Your task to perform on an android device: Search for a tv stand on Ikea Image 0: 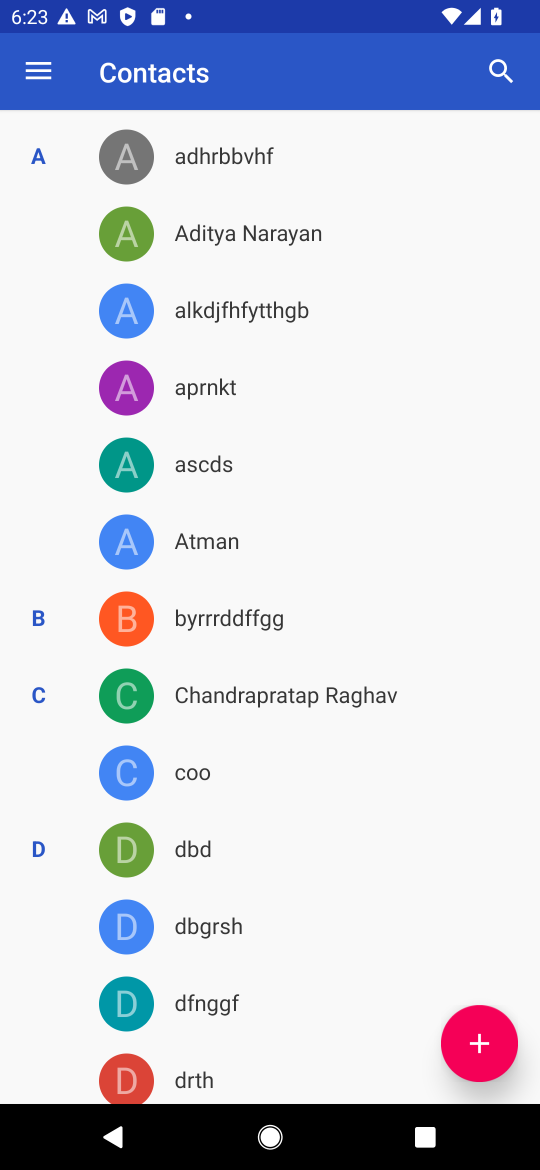
Step 0: press home button
Your task to perform on an android device: Search for a tv stand on Ikea Image 1: 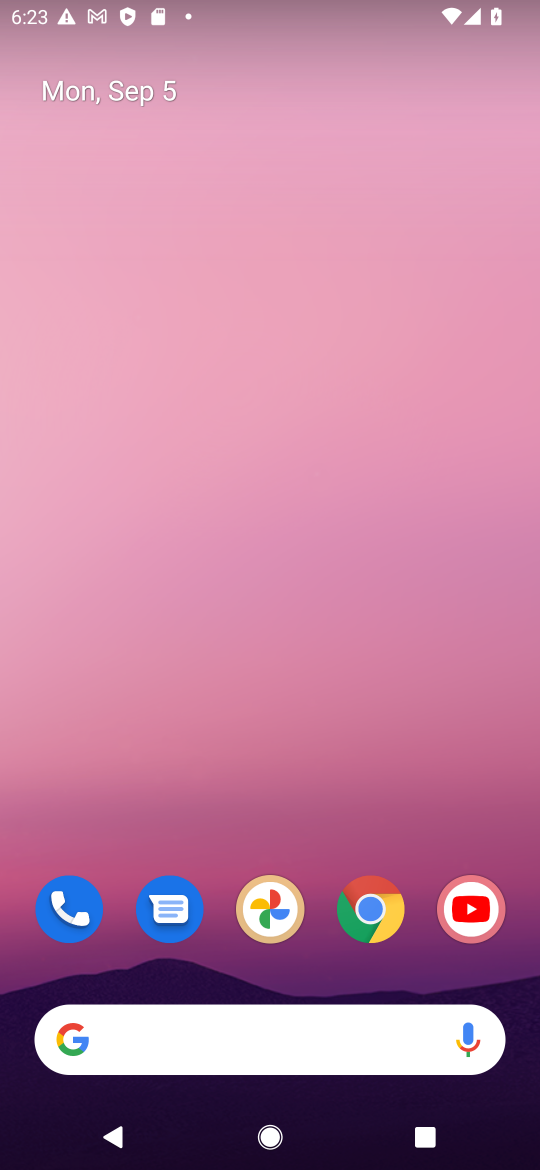
Step 1: click (395, 122)
Your task to perform on an android device: Search for a tv stand on Ikea Image 2: 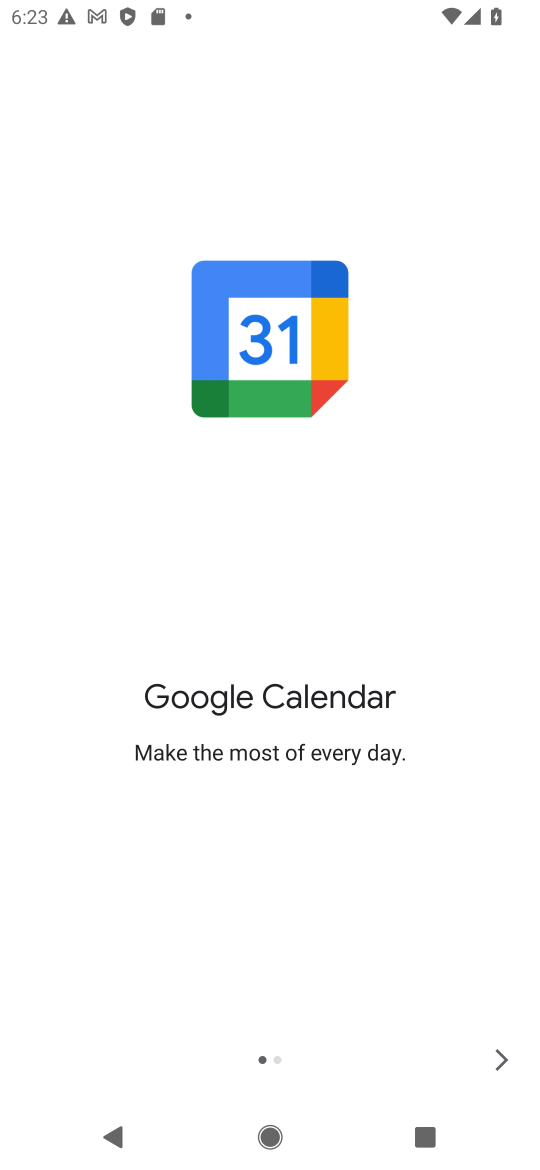
Step 2: press home button
Your task to perform on an android device: Search for a tv stand on Ikea Image 3: 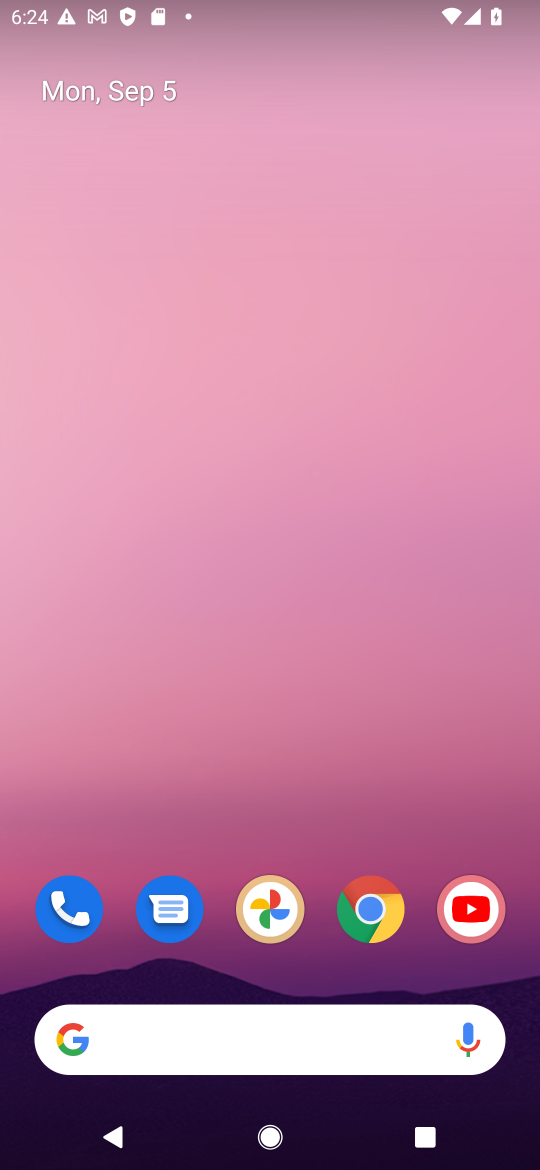
Step 3: drag from (291, 987) to (293, 336)
Your task to perform on an android device: Search for a tv stand on Ikea Image 4: 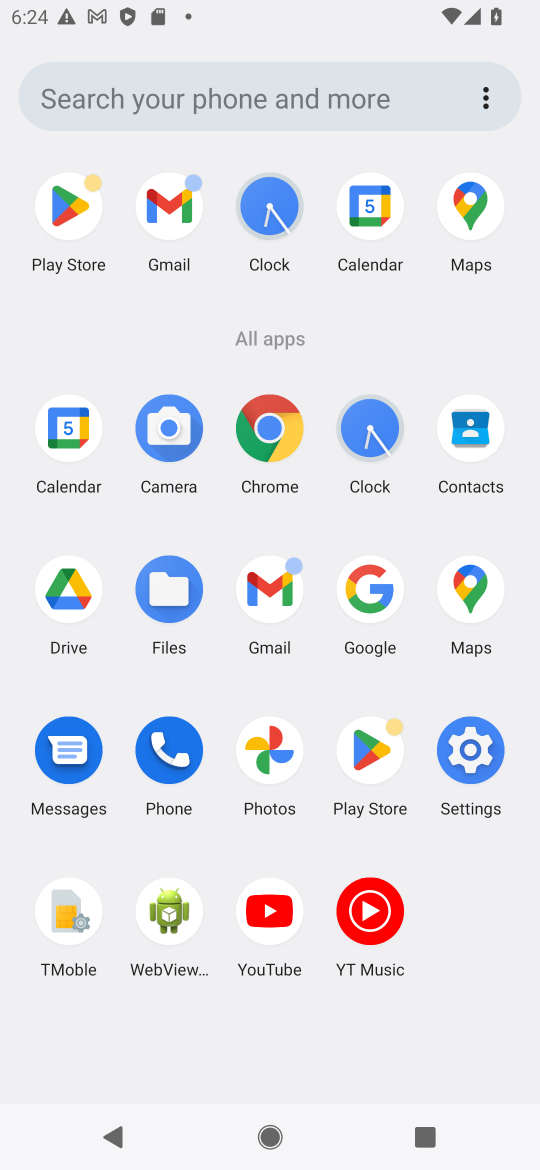
Step 4: click (374, 596)
Your task to perform on an android device: Search for a tv stand on Ikea Image 5: 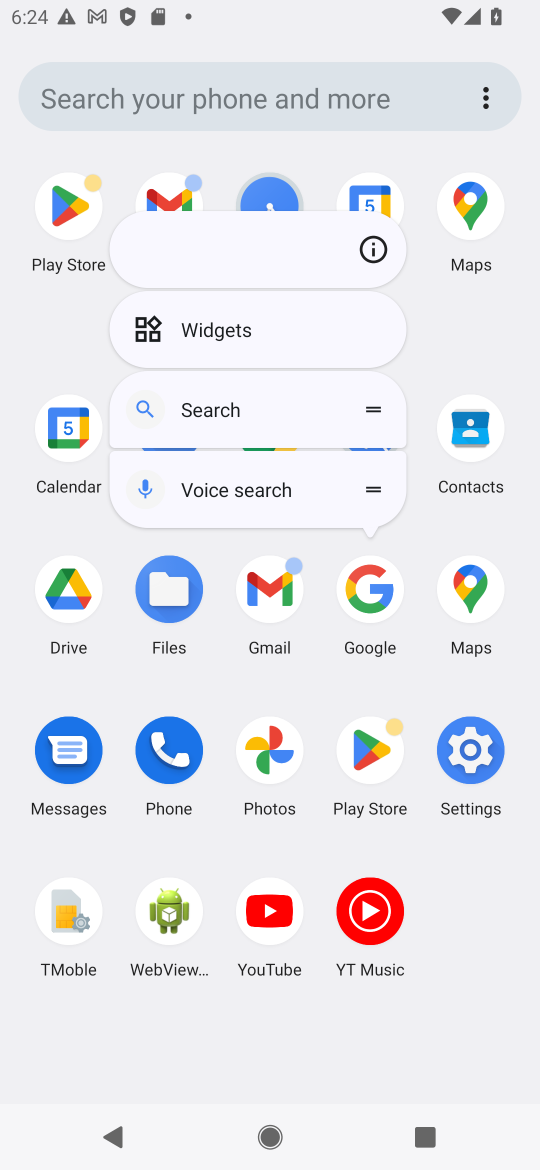
Step 5: click (375, 605)
Your task to perform on an android device: Search for a tv stand on Ikea Image 6: 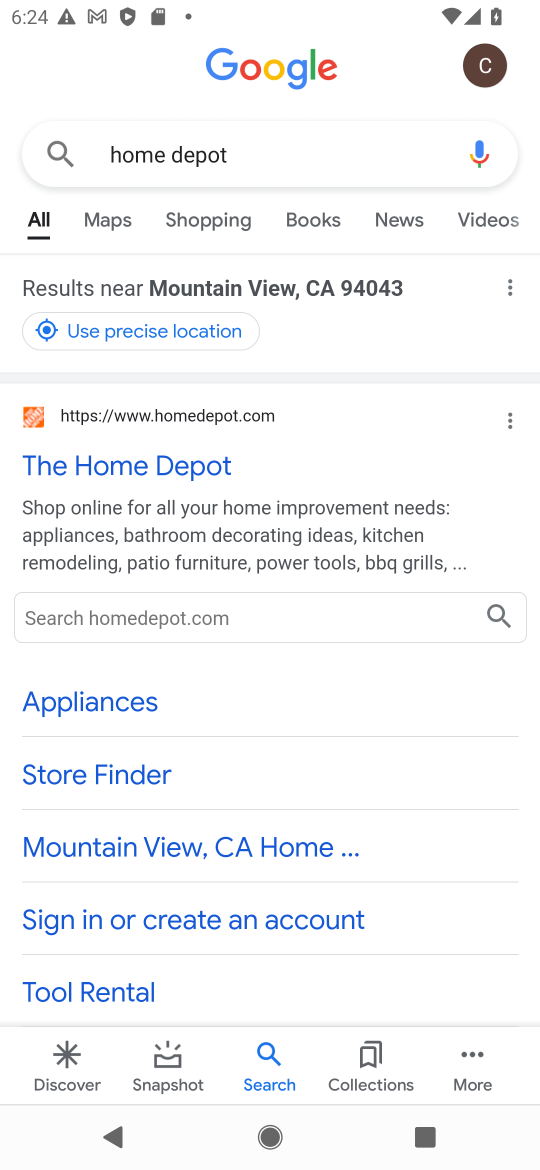
Step 6: click (183, 152)
Your task to perform on an android device: Search for a tv stand on Ikea Image 7: 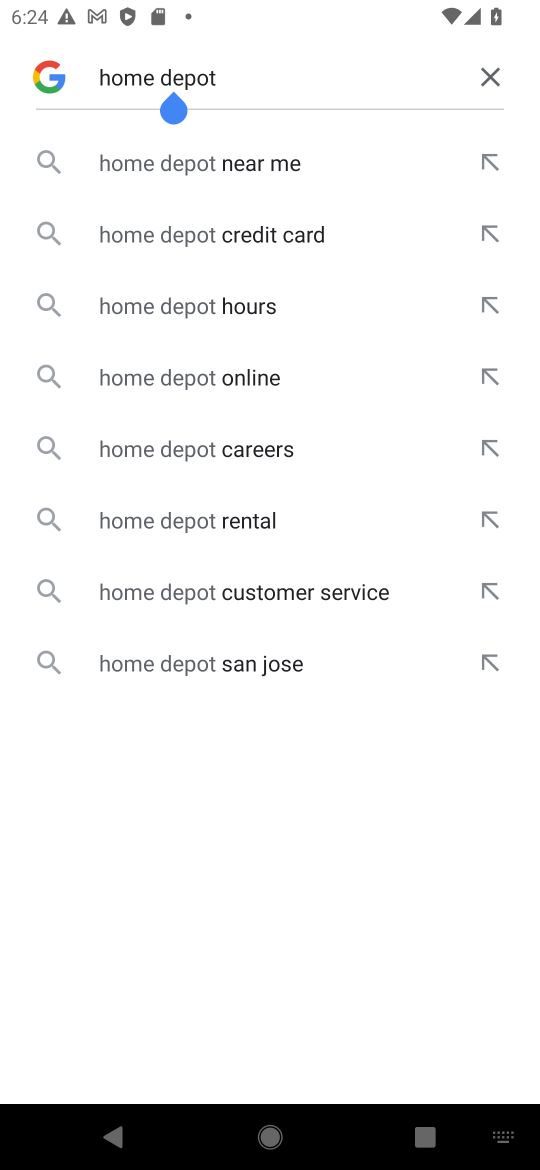
Step 7: click (503, 79)
Your task to perform on an android device: Search for a tv stand on Ikea Image 8: 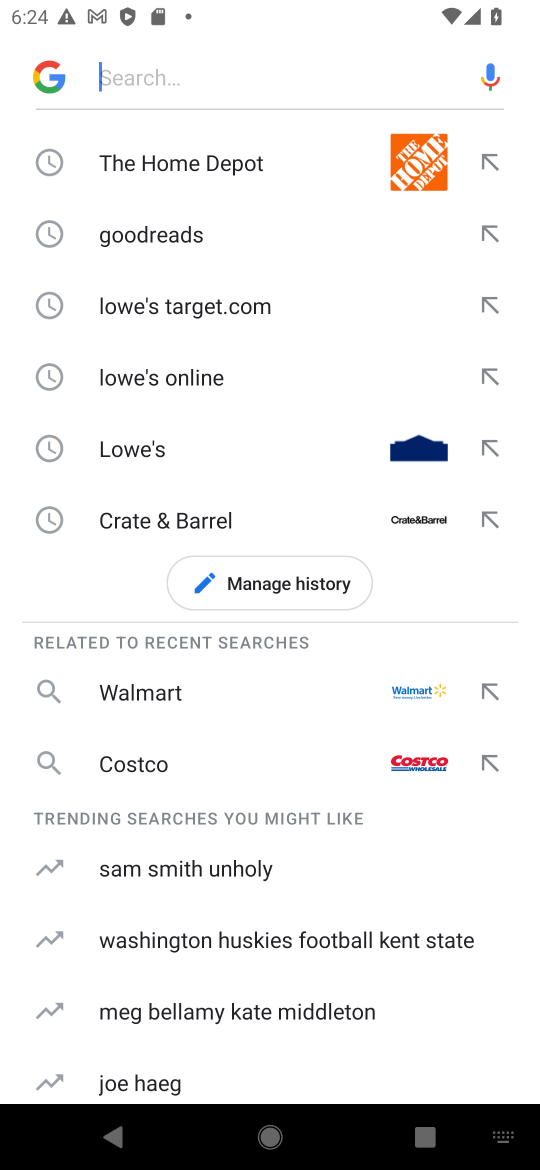
Step 8: type "Ikea"
Your task to perform on an android device: Search for a tv stand on Ikea Image 9: 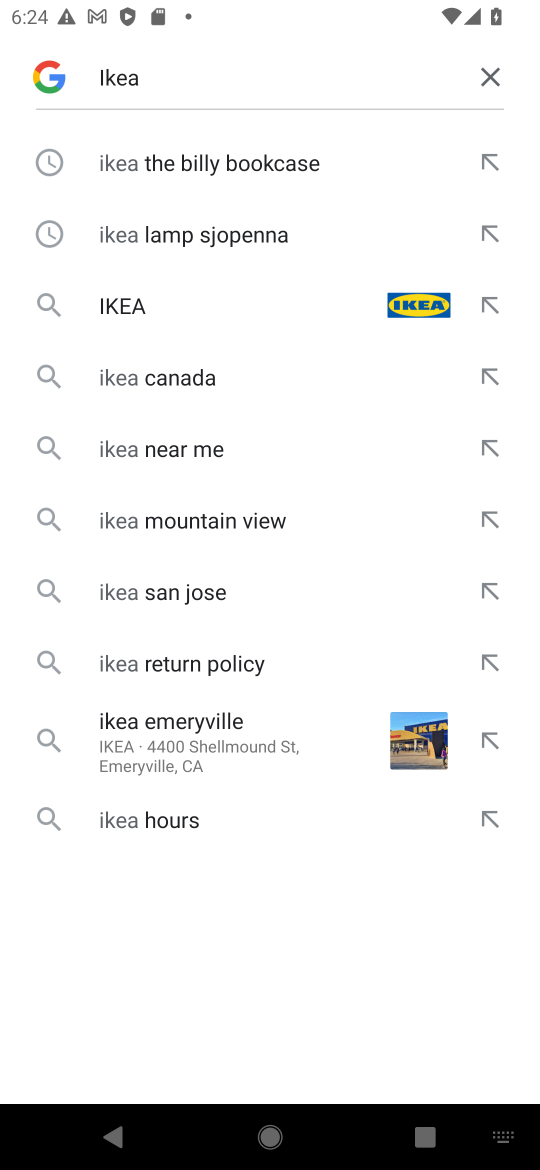
Step 9: click (431, 300)
Your task to perform on an android device: Search for a tv stand on Ikea Image 10: 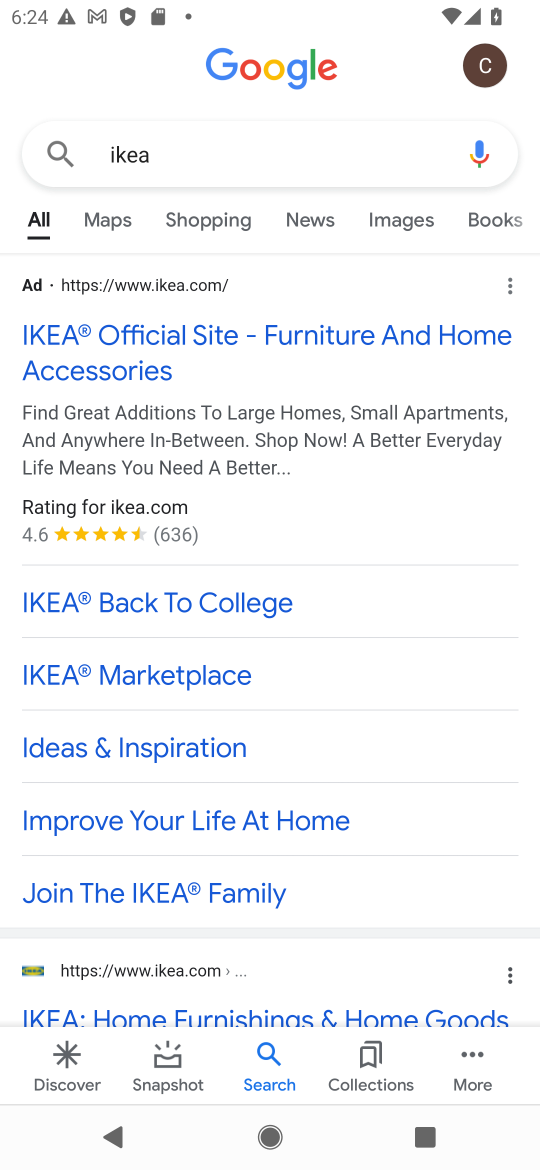
Step 10: click (97, 320)
Your task to perform on an android device: Search for a tv stand on Ikea Image 11: 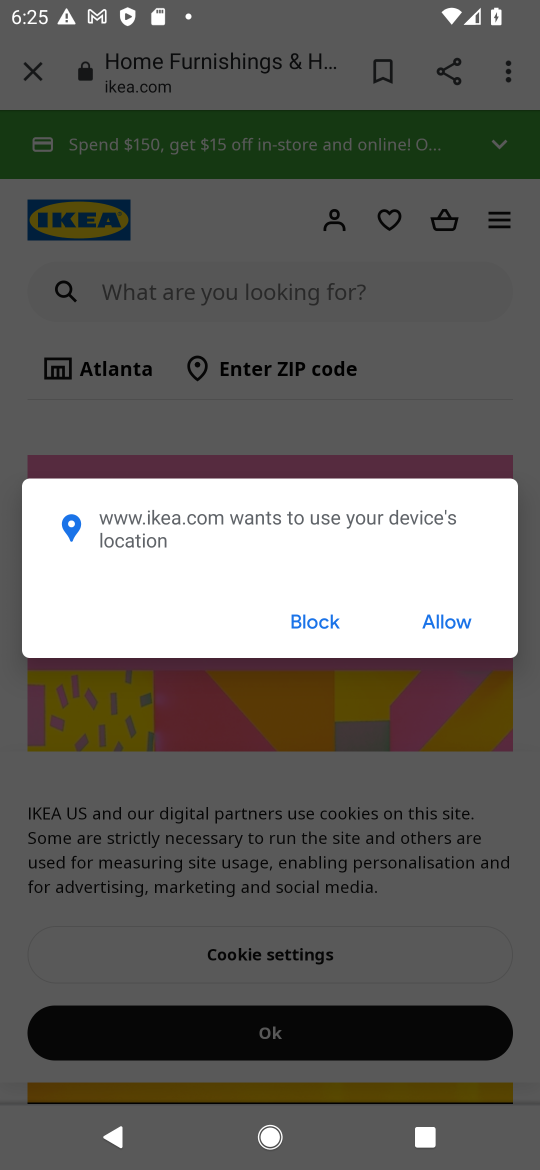
Step 11: click (295, 624)
Your task to perform on an android device: Search for a tv stand on Ikea Image 12: 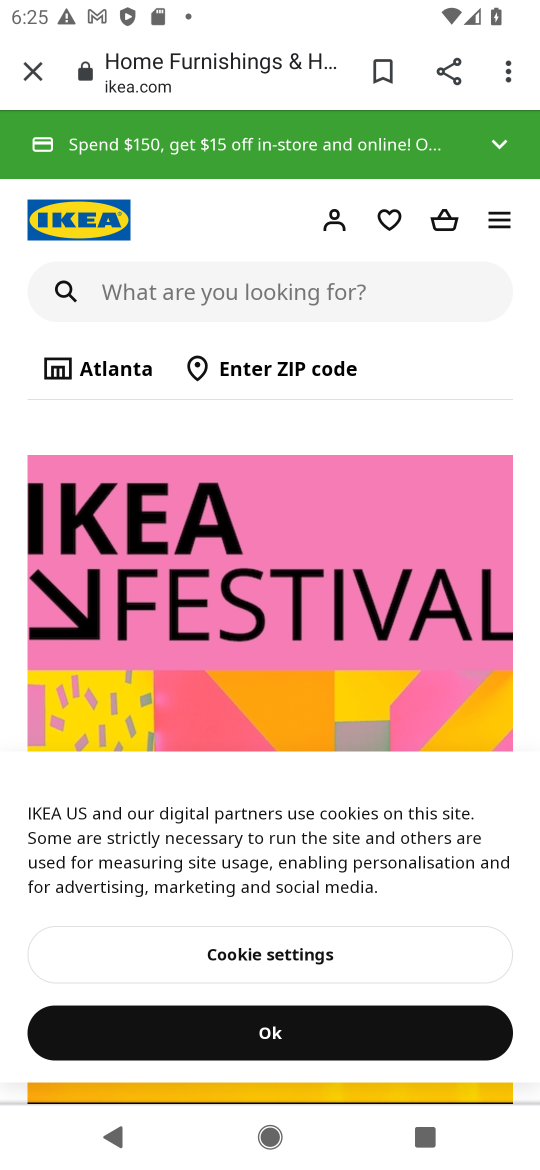
Step 12: click (147, 291)
Your task to perform on an android device: Search for a tv stand on Ikea Image 13: 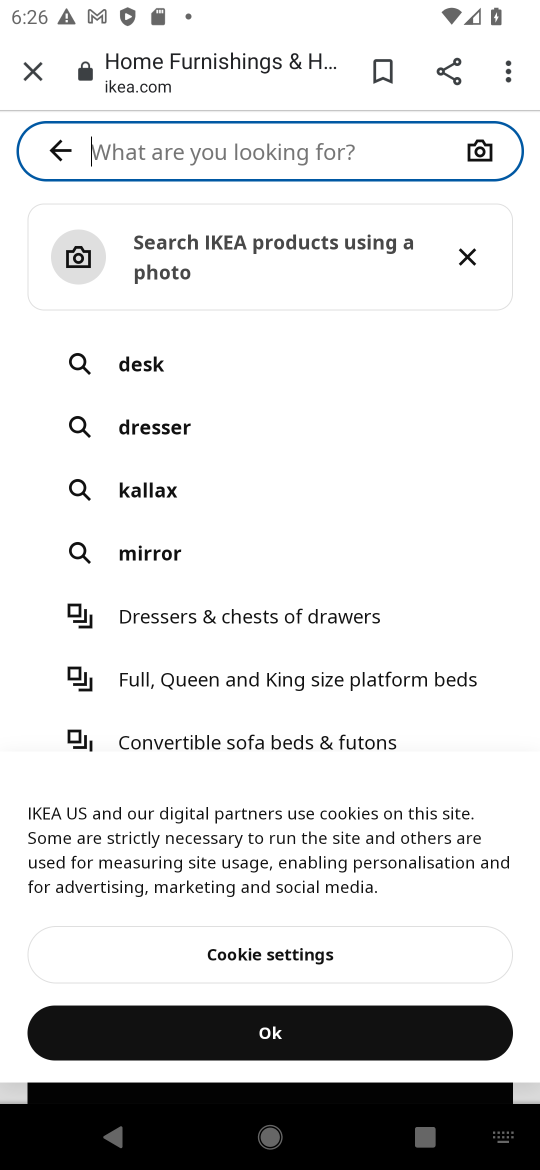
Step 13: type "tv stand"
Your task to perform on an android device: Search for a tv stand on Ikea Image 14: 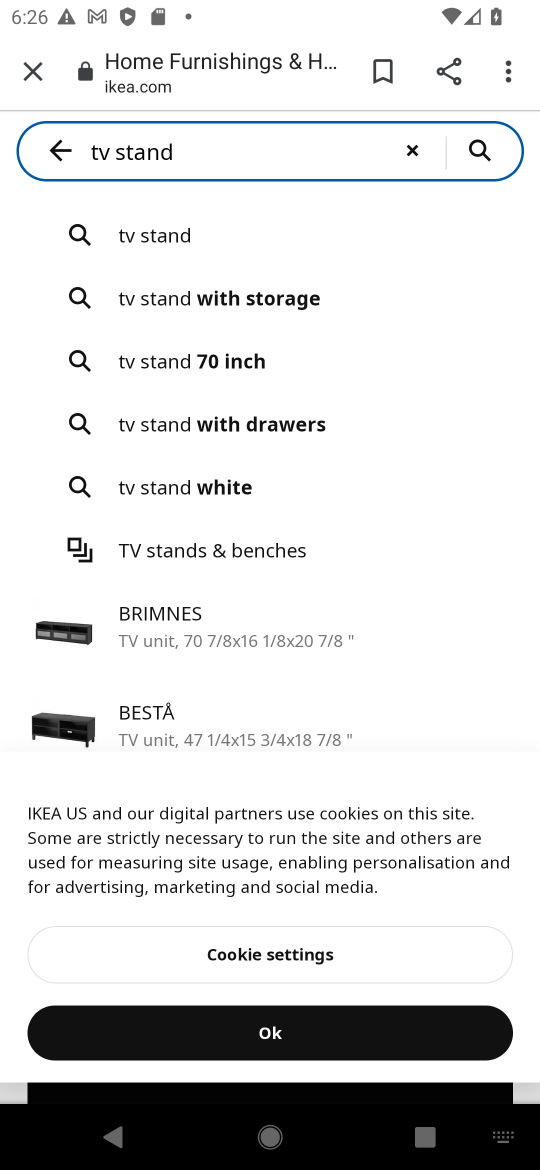
Step 14: click (183, 237)
Your task to perform on an android device: Search for a tv stand on Ikea Image 15: 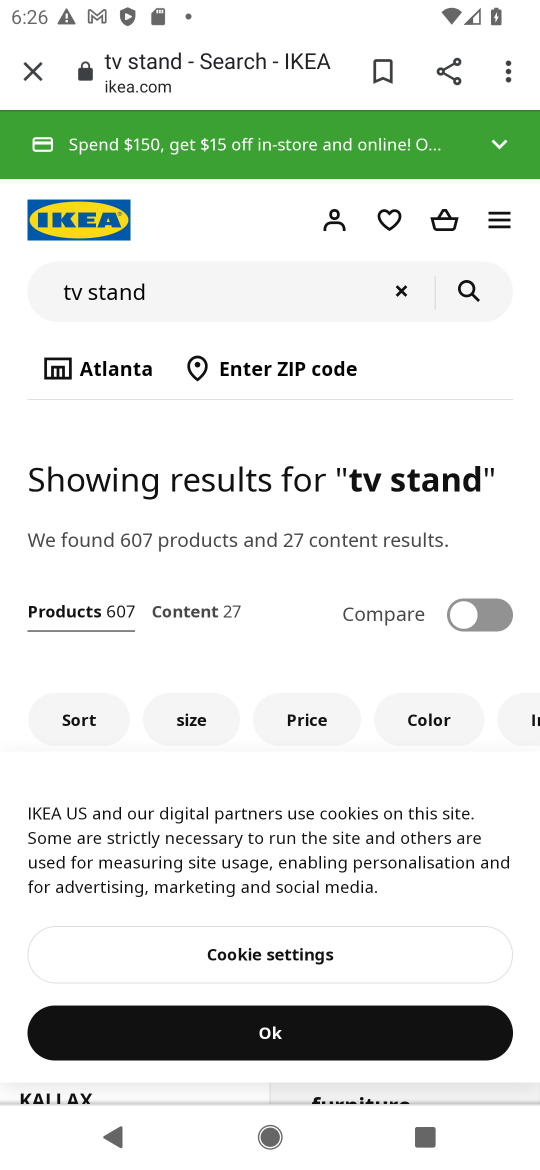
Step 15: task complete